Your task to perform on an android device: empty trash in google photos Image 0: 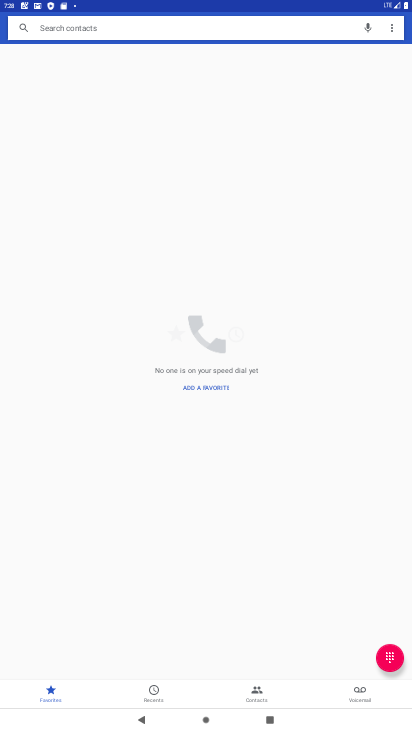
Step 0: press home button
Your task to perform on an android device: empty trash in google photos Image 1: 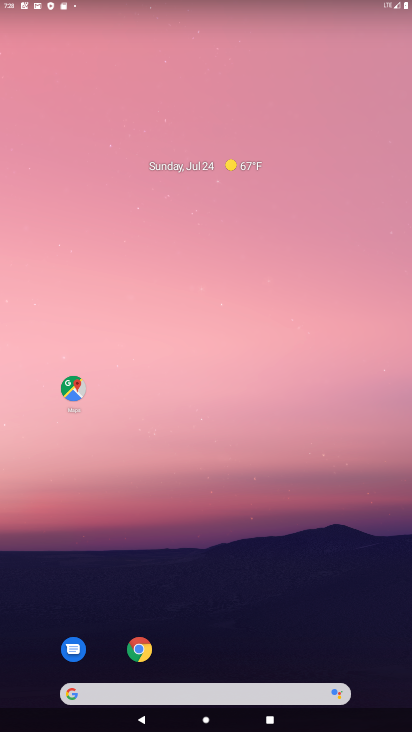
Step 1: drag from (229, 669) to (0, 77)
Your task to perform on an android device: empty trash in google photos Image 2: 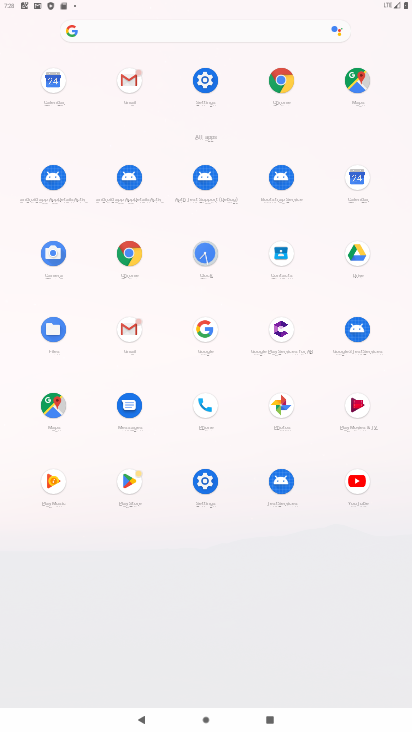
Step 2: click (271, 396)
Your task to perform on an android device: empty trash in google photos Image 3: 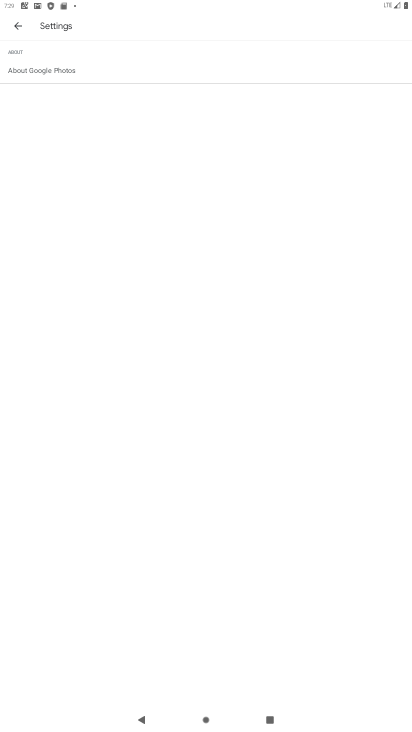
Step 3: click (18, 15)
Your task to perform on an android device: empty trash in google photos Image 4: 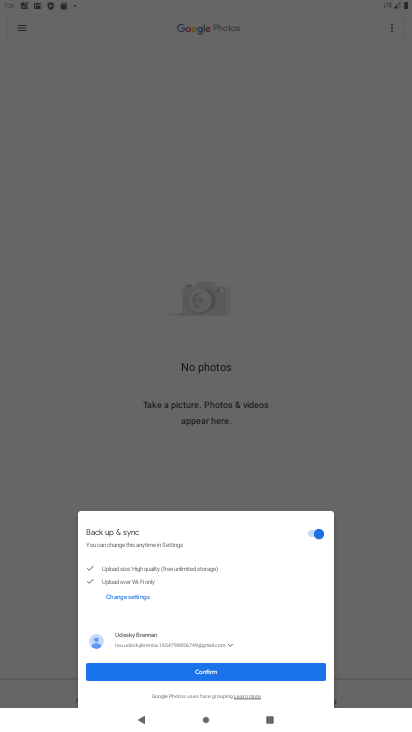
Step 4: click (251, 675)
Your task to perform on an android device: empty trash in google photos Image 5: 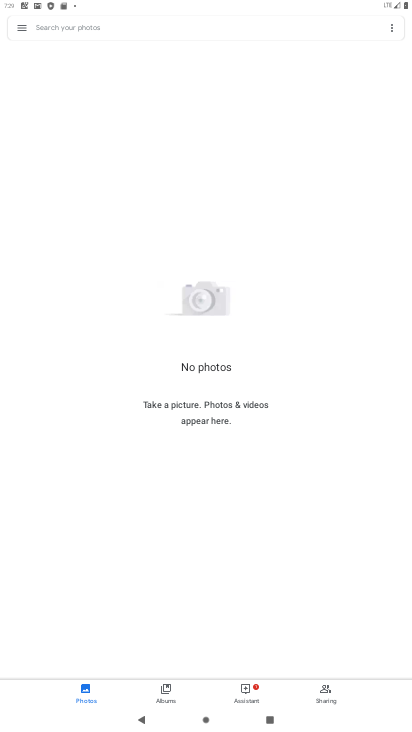
Step 5: click (23, 21)
Your task to perform on an android device: empty trash in google photos Image 6: 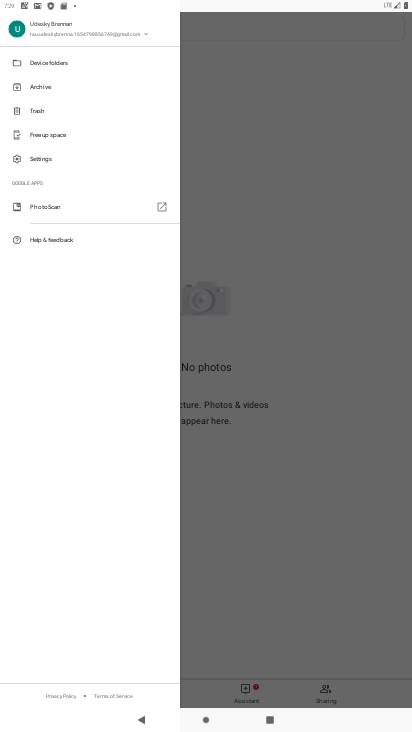
Step 6: click (41, 104)
Your task to perform on an android device: empty trash in google photos Image 7: 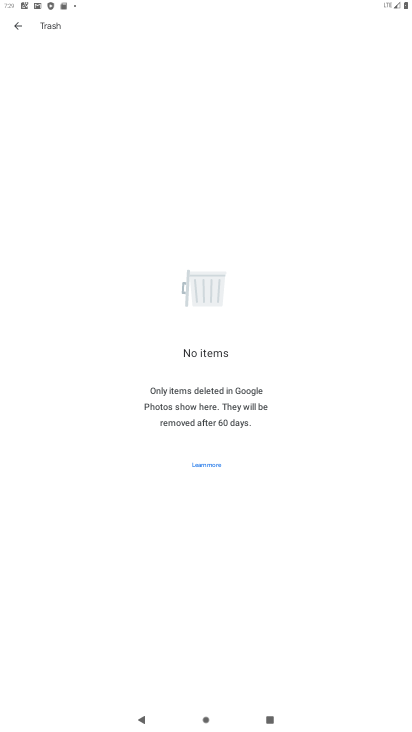
Step 7: task complete